Your task to perform on an android device: open wifi settings Image 0: 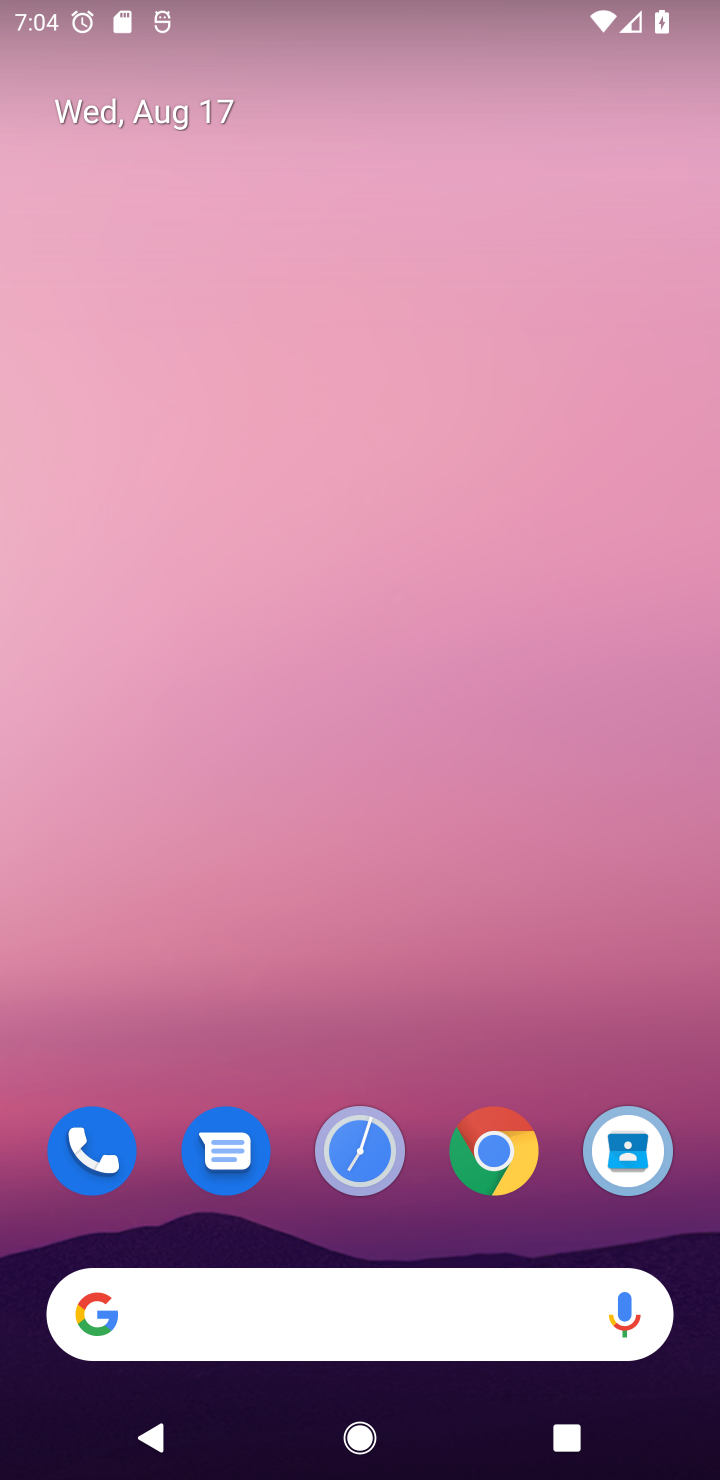
Step 0: drag from (403, 1252) to (389, 217)
Your task to perform on an android device: open wifi settings Image 1: 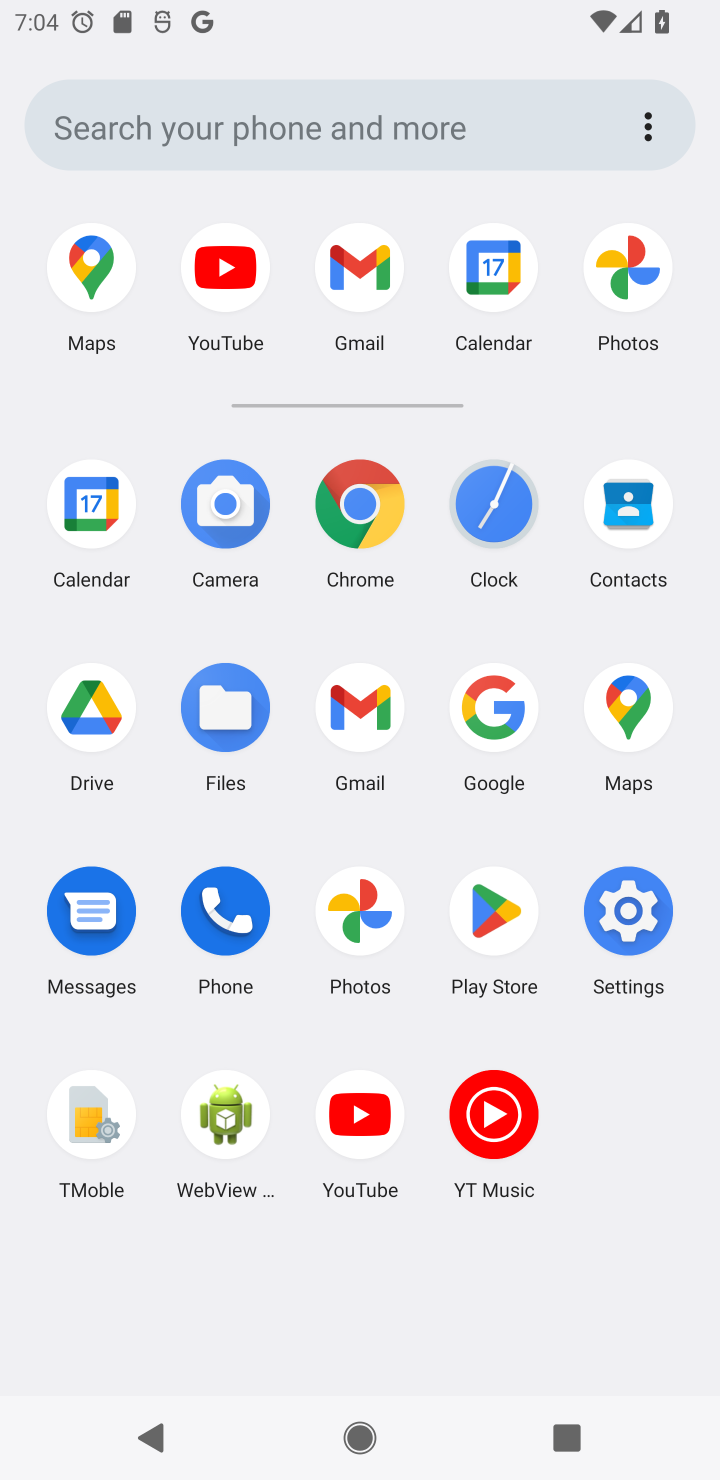
Step 1: click (635, 929)
Your task to perform on an android device: open wifi settings Image 2: 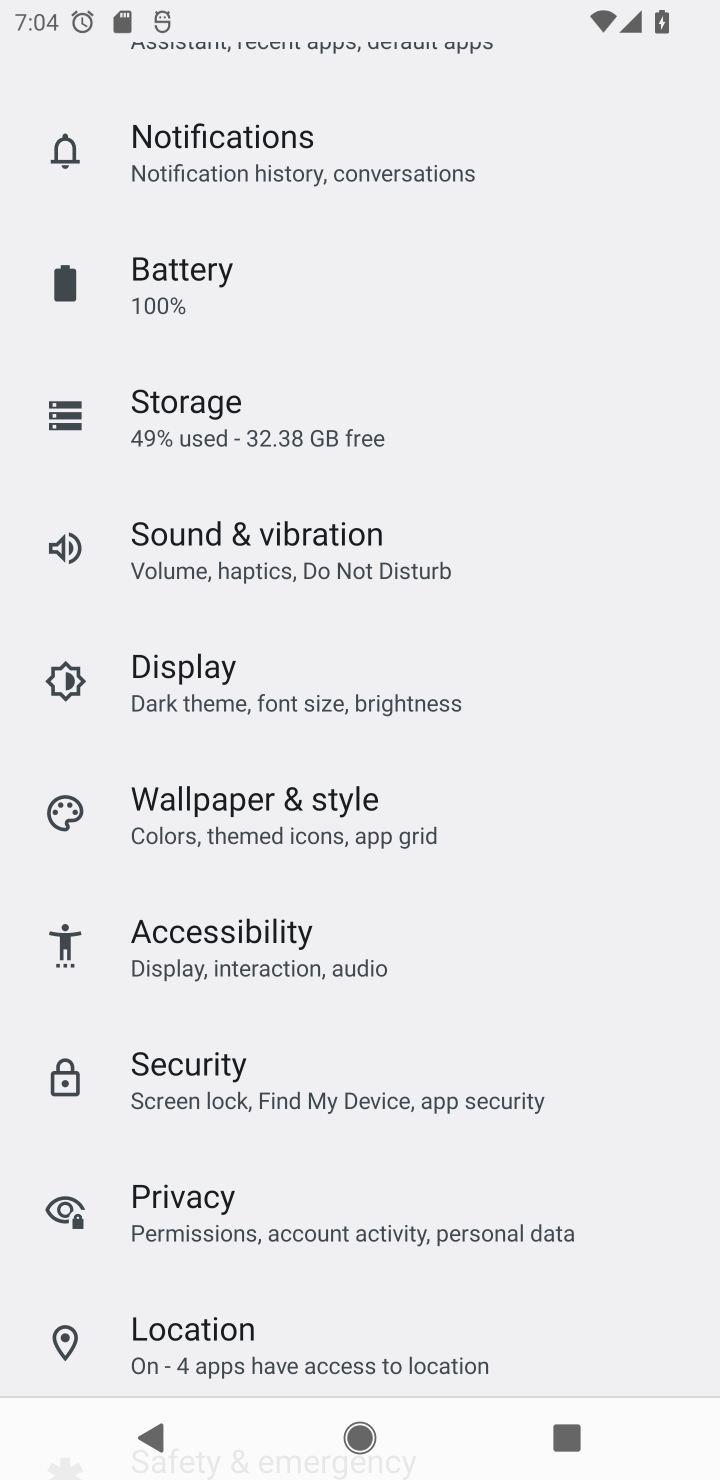
Step 2: drag from (295, 193) to (415, 719)
Your task to perform on an android device: open wifi settings Image 3: 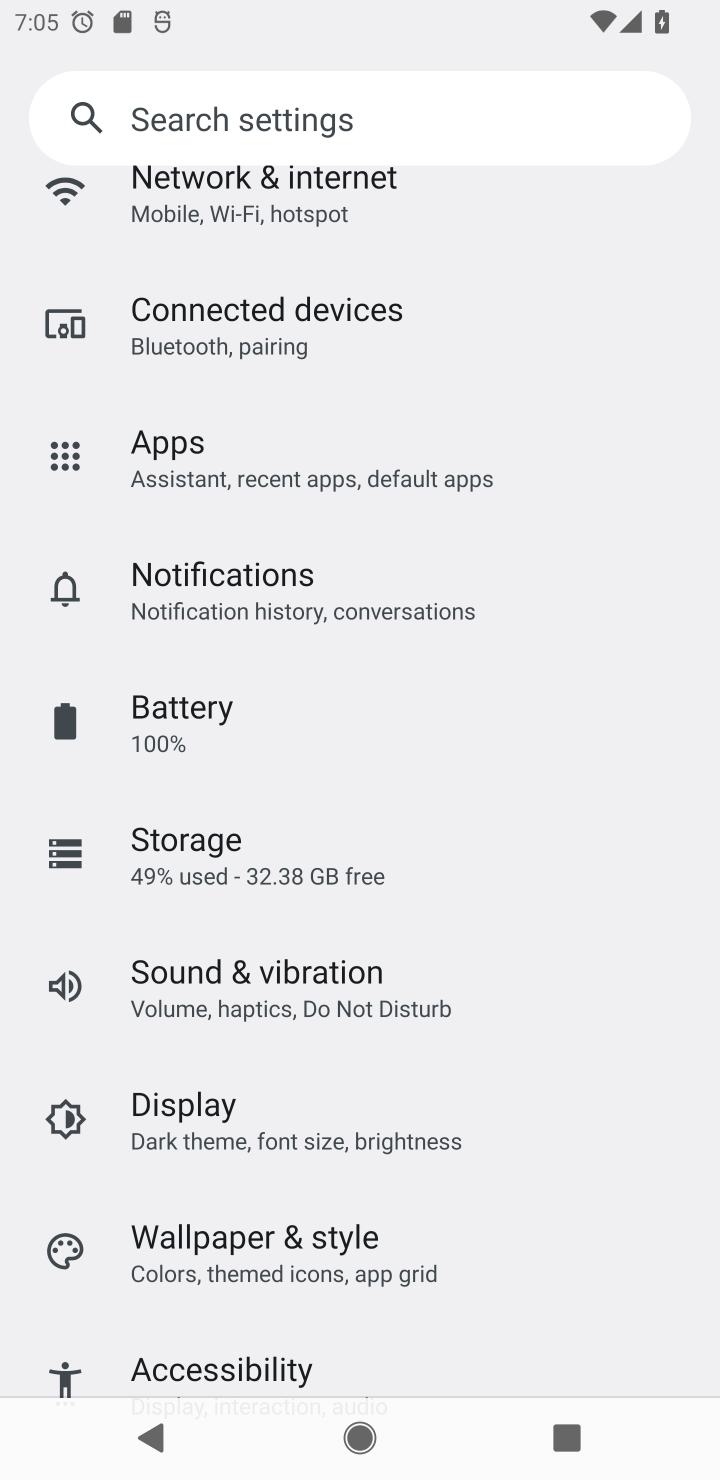
Step 3: click (316, 263)
Your task to perform on an android device: open wifi settings Image 4: 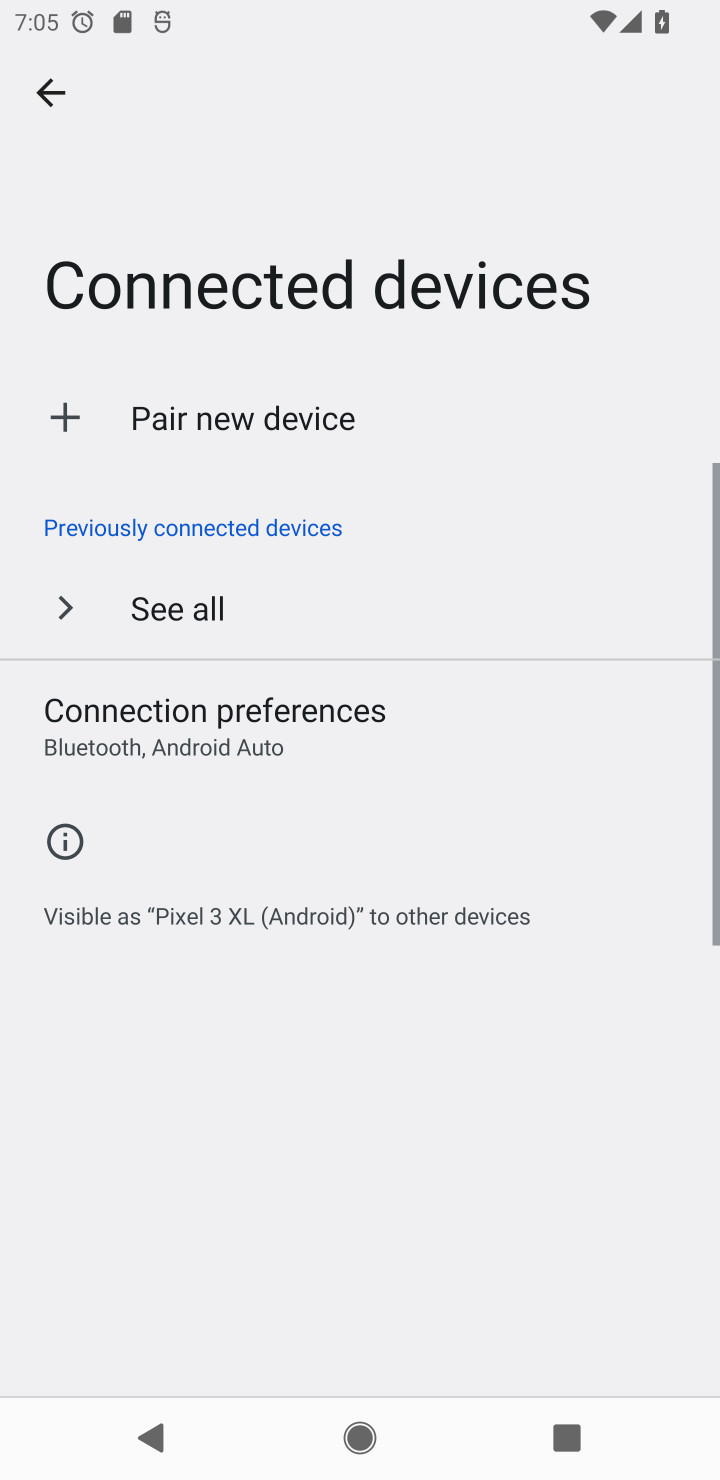
Step 4: task complete